Your task to perform on an android device: When is my next appointment? Image 0: 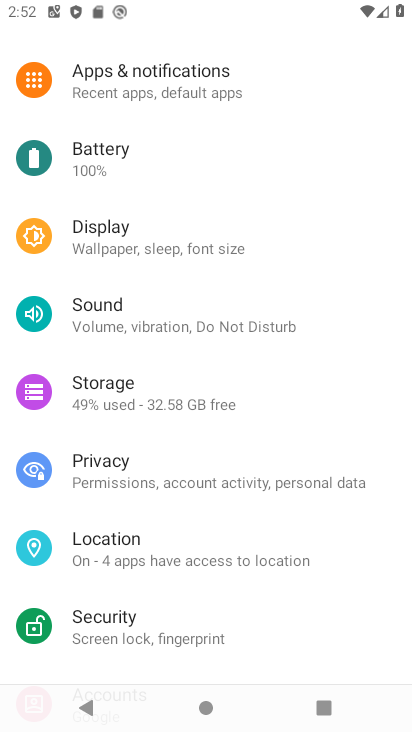
Step 0: press home button
Your task to perform on an android device: When is my next appointment? Image 1: 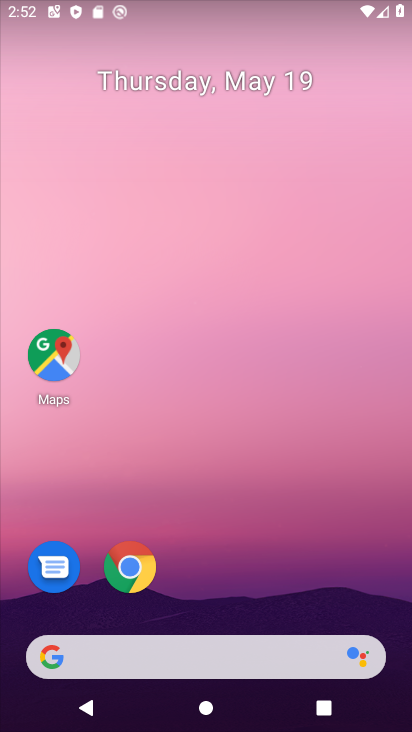
Step 1: drag from (177, 724) to (160, 167)
Your task to perform on an android device: When is my next appointment? Image 2: 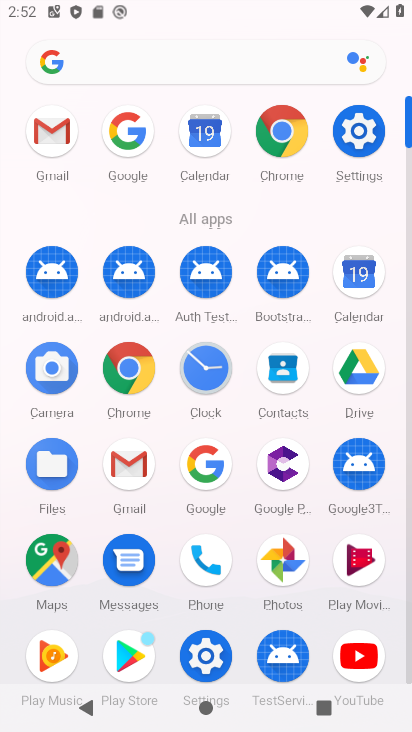
Step 2: click (357, 275)
Your task to perform on an android device: When is my next appointment? Image 3: 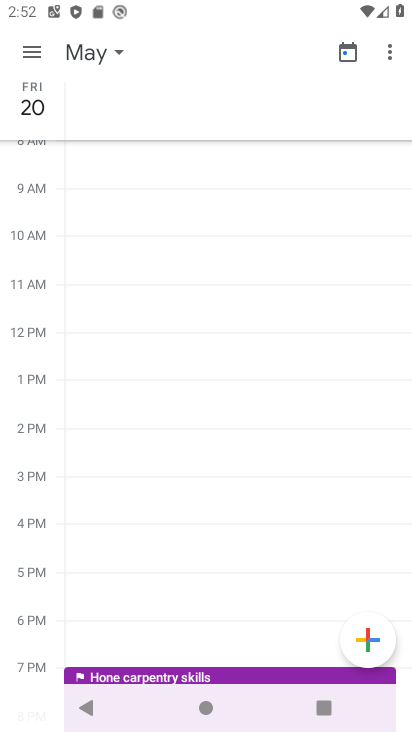
Step 3: click (97, 51)
Your task to perform on an android device: When is my next appointment? Image 4: 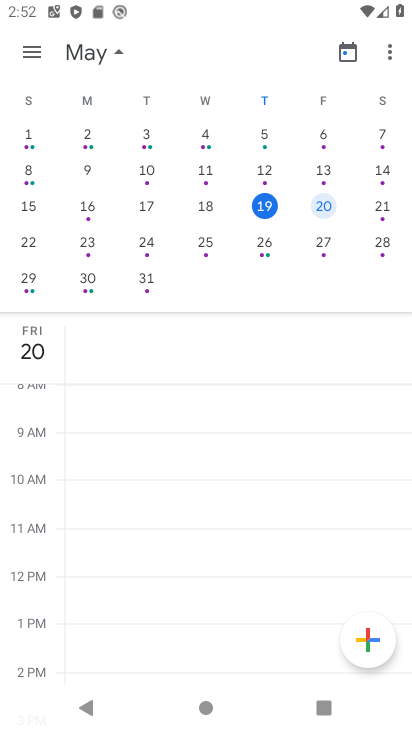
Step 4: click (323, 203)
Your task to perform on an android device: When is my next appointment? Image 5: 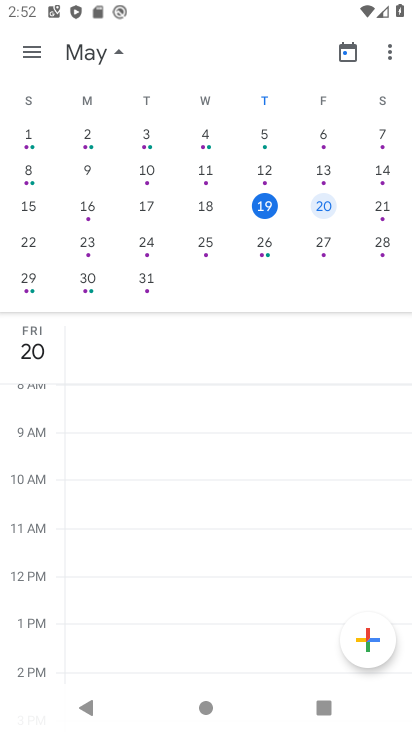
Step 5: click (119, 50)
Your task to perform on an android device: When is my next appointment? Image 6: 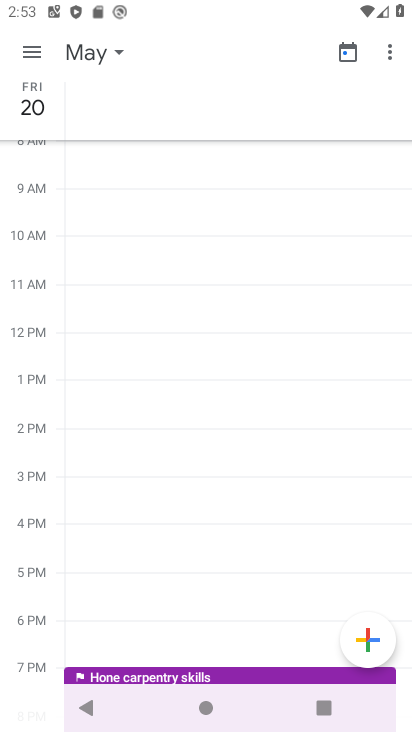
Step 6: click (38, 103)
Your task to perform on an android device: When is my next appointment? Image 7: 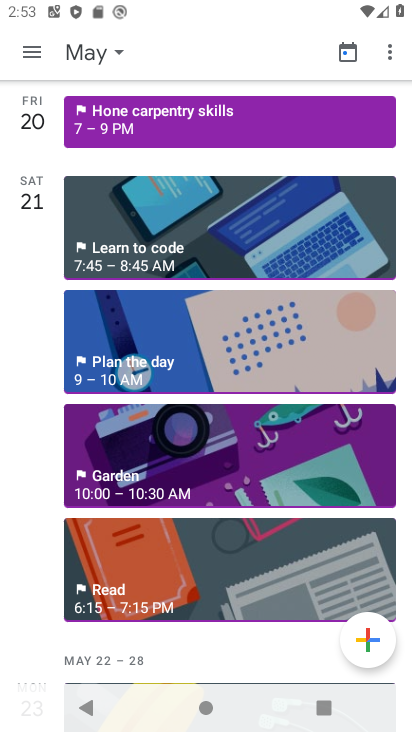
Step 7: task complete